Your task to perform on an android device: Open CNN.com Image 0: 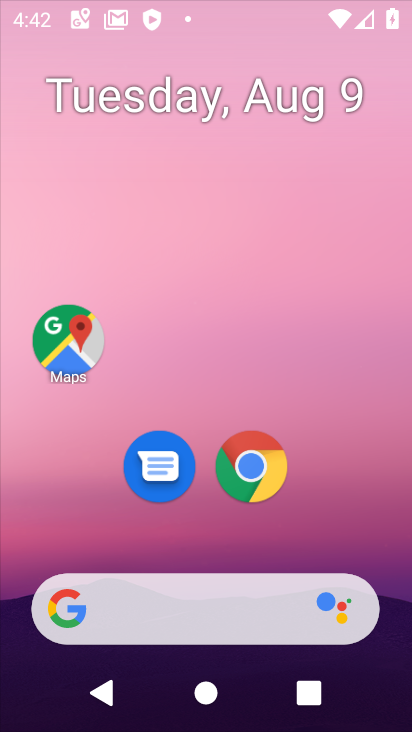
Step 0: drag from (256, 491) to (338, 102)
Your task to perform on an android device: Open CNN.com Image 1: 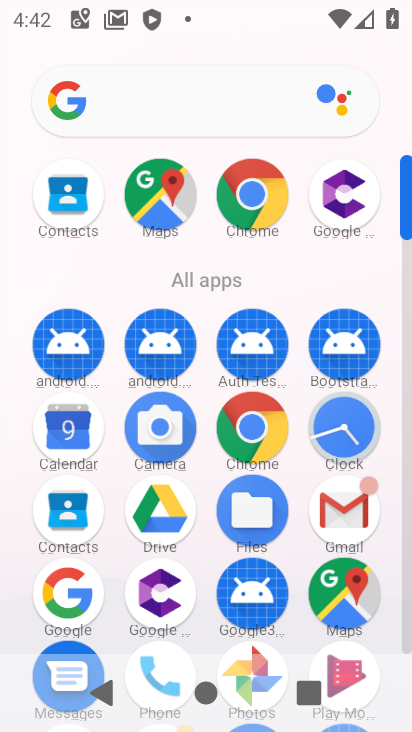
Step 1: click (249, 194)
Your task to perform on an android device: Open CNN.com Image 2: 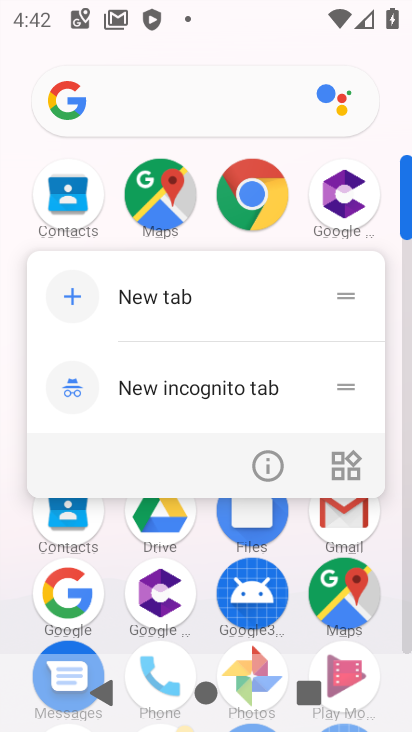
Step 2: click (260, 454)
Your task to perform on an android device: Open CNN.com Image 3: 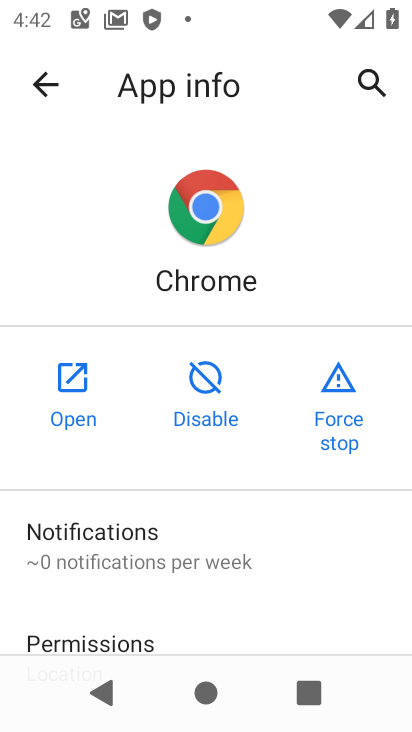
Step 3: click (73, 400)
Your task to perform on an android device: Open CNN.com Image 4: 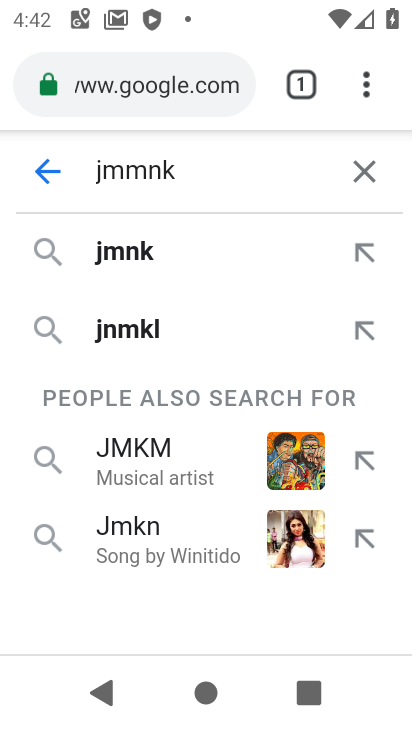
Step 4: click (359, 168)
Your task to perform on an android device: Open CNN.com Image 5: 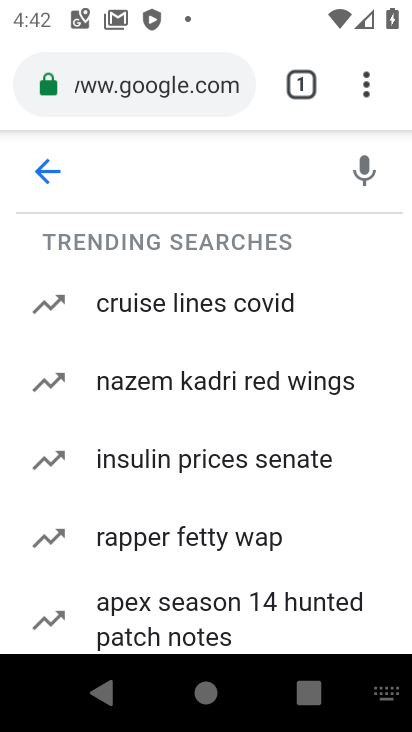
Step 5: type "cnn.com"
Your task to perform on an android device: Open CNN.com Image 6: 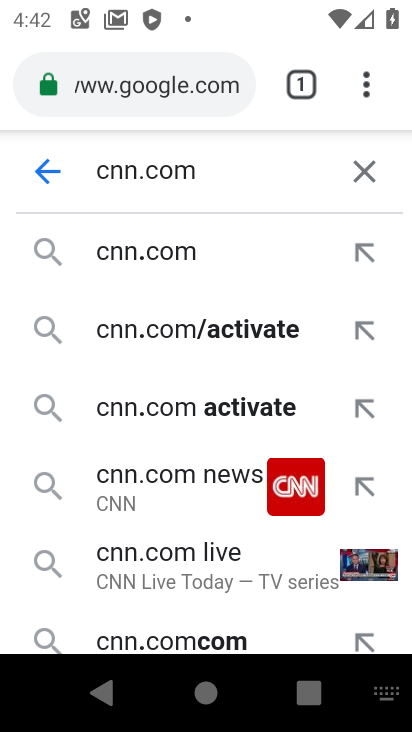
Step 6: click (181, 243)
Your task to perform on an android device: Open CNN.com Image 7: 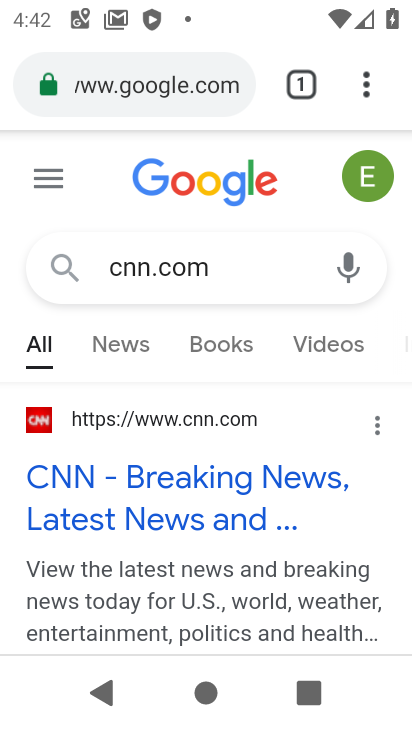
Step 7: click (160, 496)
Your task to perform on an android device: Open CNN.com Image 8: 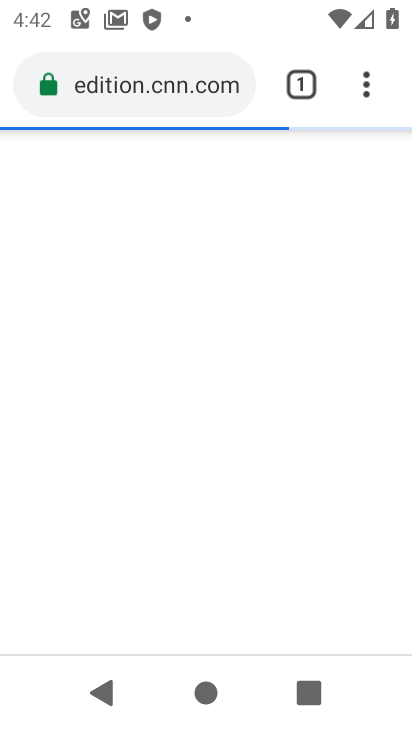
Step 8: task complete